Your task to perform on an android device: open app "Facebook Lite" (install if not already installed) Image 0: 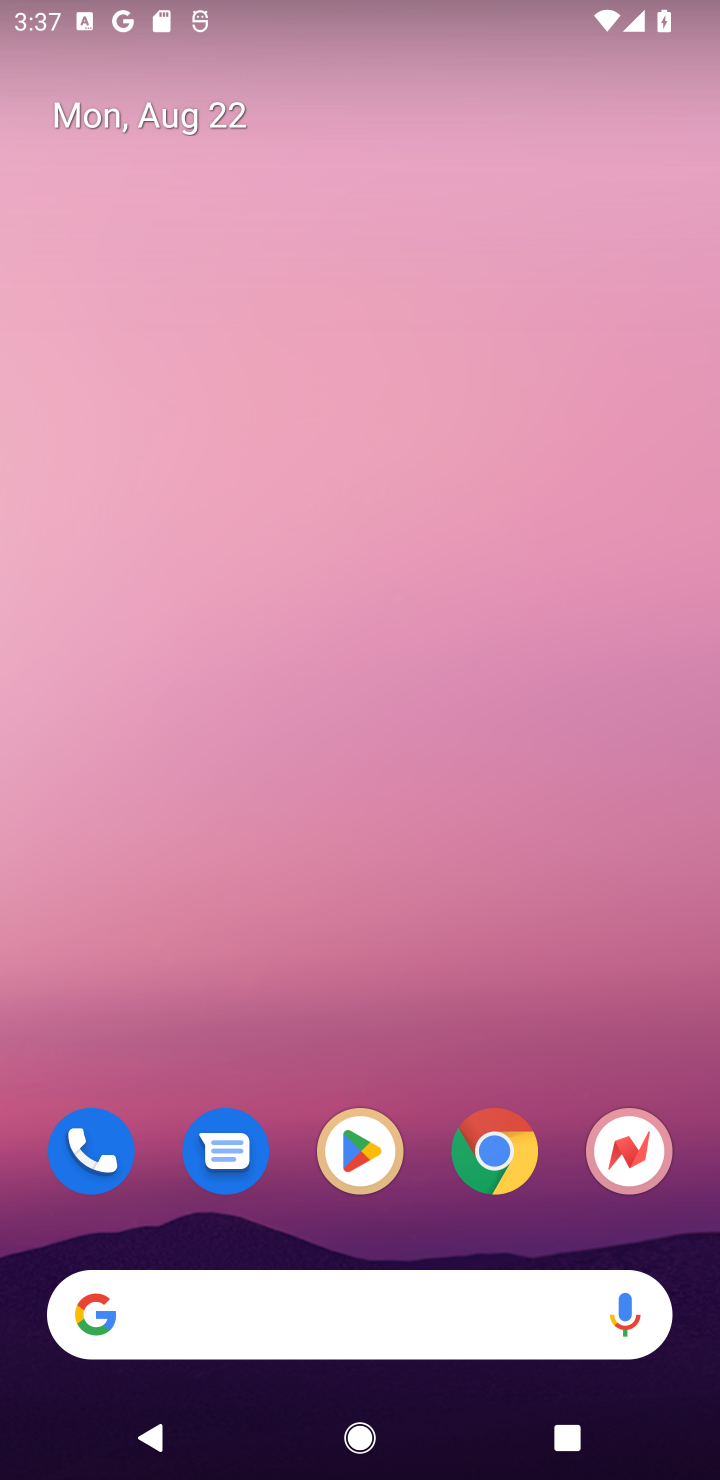
Step 0: click (365, 1153)
Your task to perform on an android device: open app "Facebook Lite" (install if not already installed) Image 1: 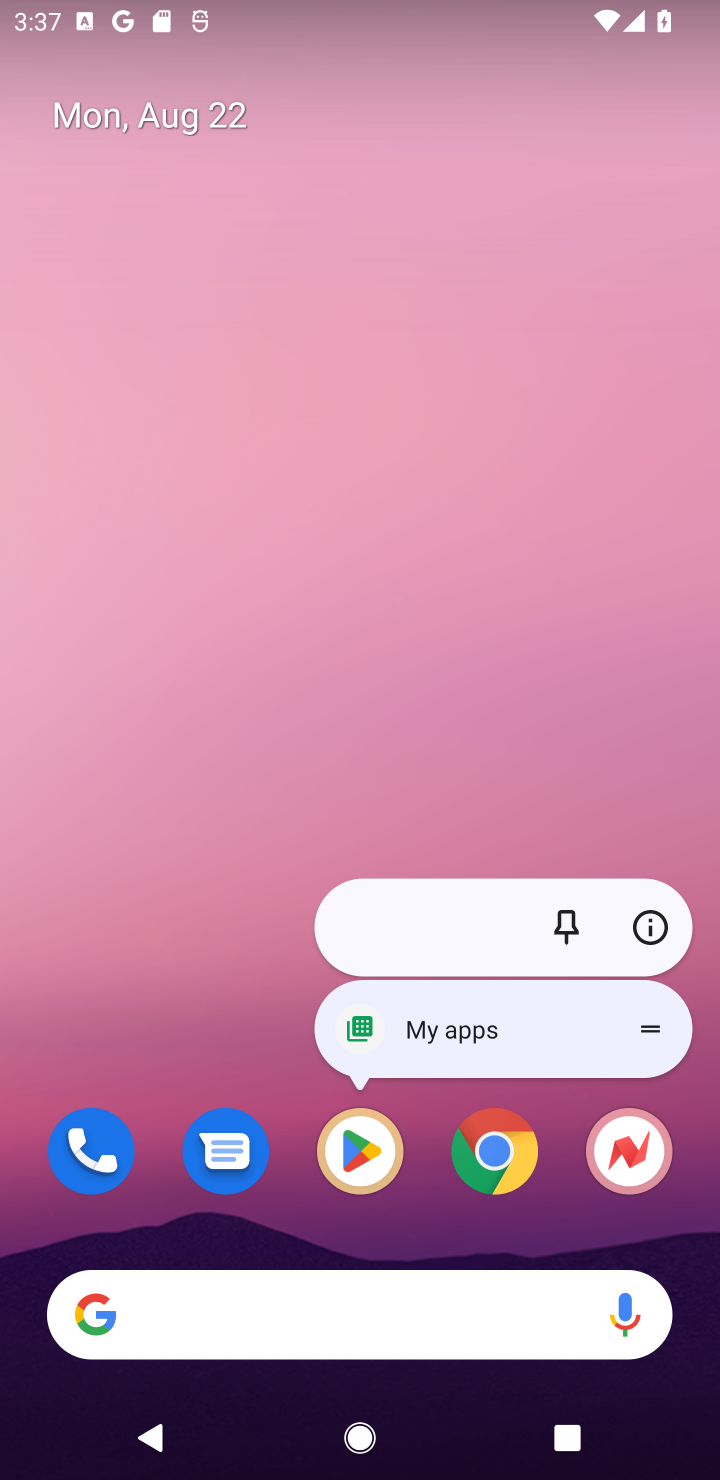
Step 1: click (365, 1160)
Your task to perform on an android device: open app "Facebook Lite" (install if not already installed) Image 2: 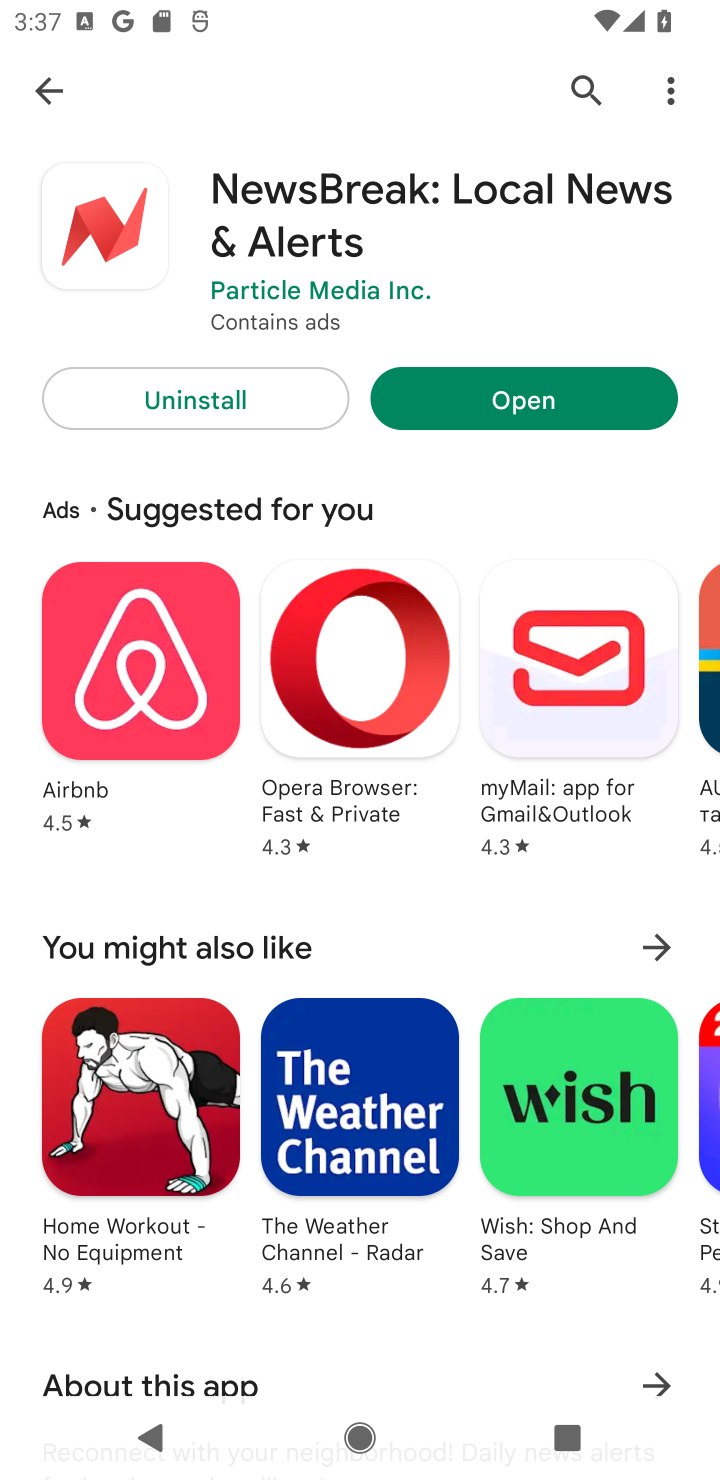
Step 2: click (579, 86)
Your task to perform on an android device: open app "Facebook Lite" (install if not already installed) Image 3: 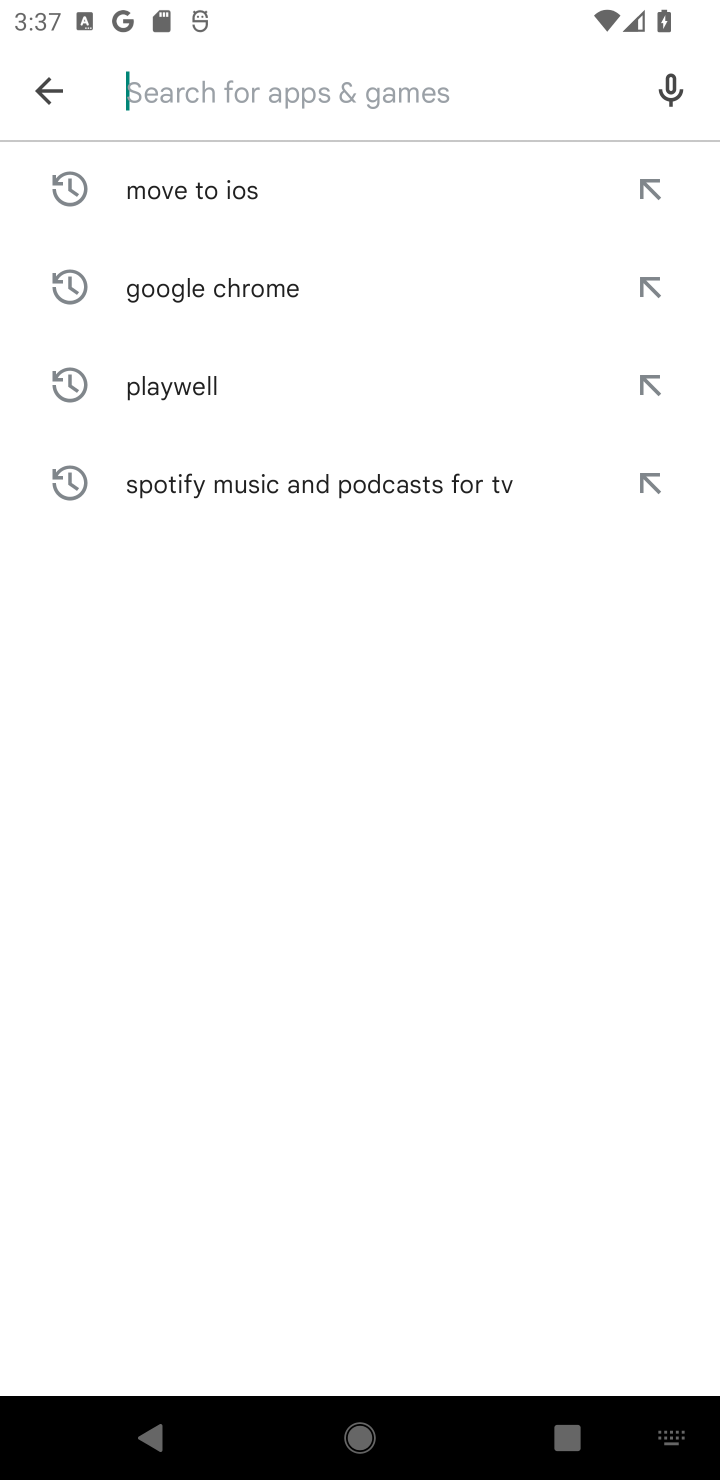
Step 3: type "Facebook Lite"
Your task to perform on an android device: open app "Facebook Lite" (install if not already installed) Image 4: 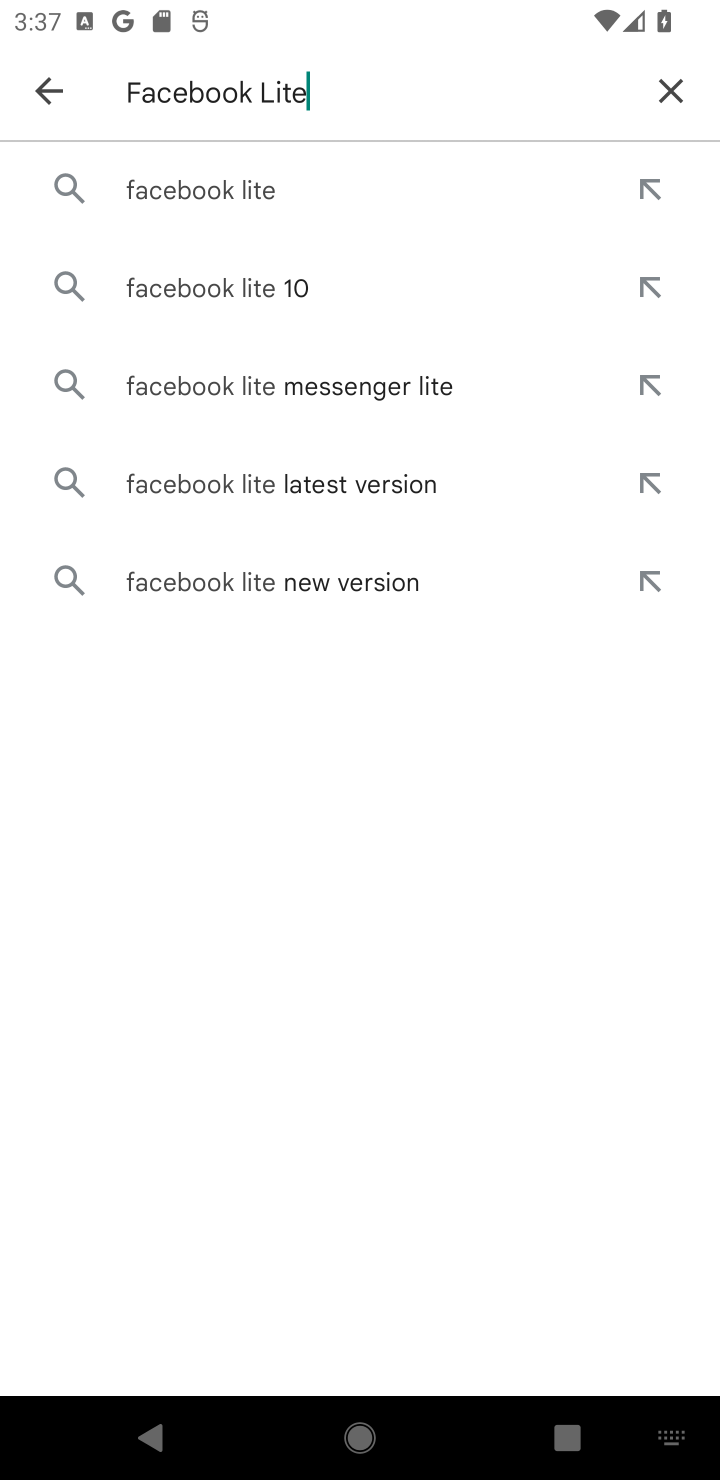
Step 4: click (253, 193)
Your task to perform on an android device: open app "Facebook Lite" (install if not already installed) Image 5: 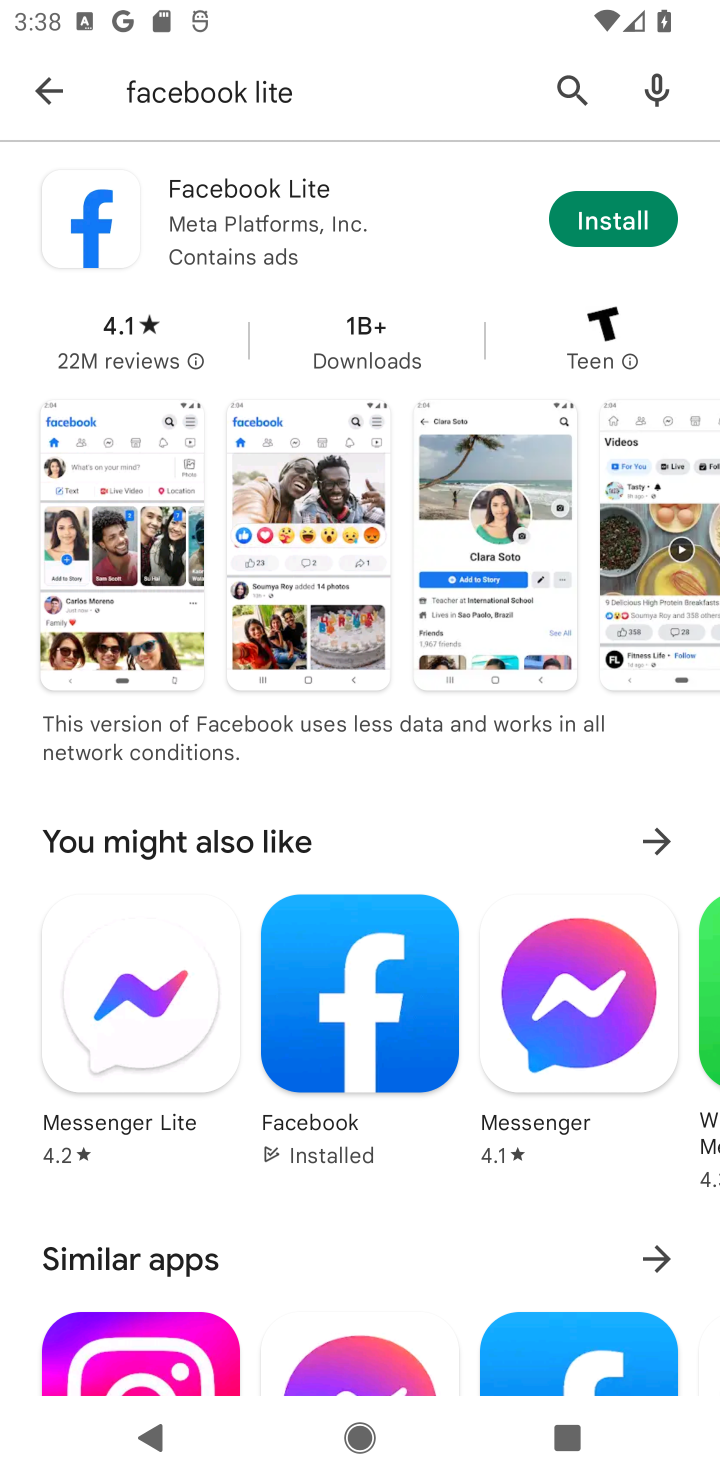
Step 5: click (605, 216)
Your task to perform on an android device: open app "Facebook Lite" (install if not already installed) Image 6: 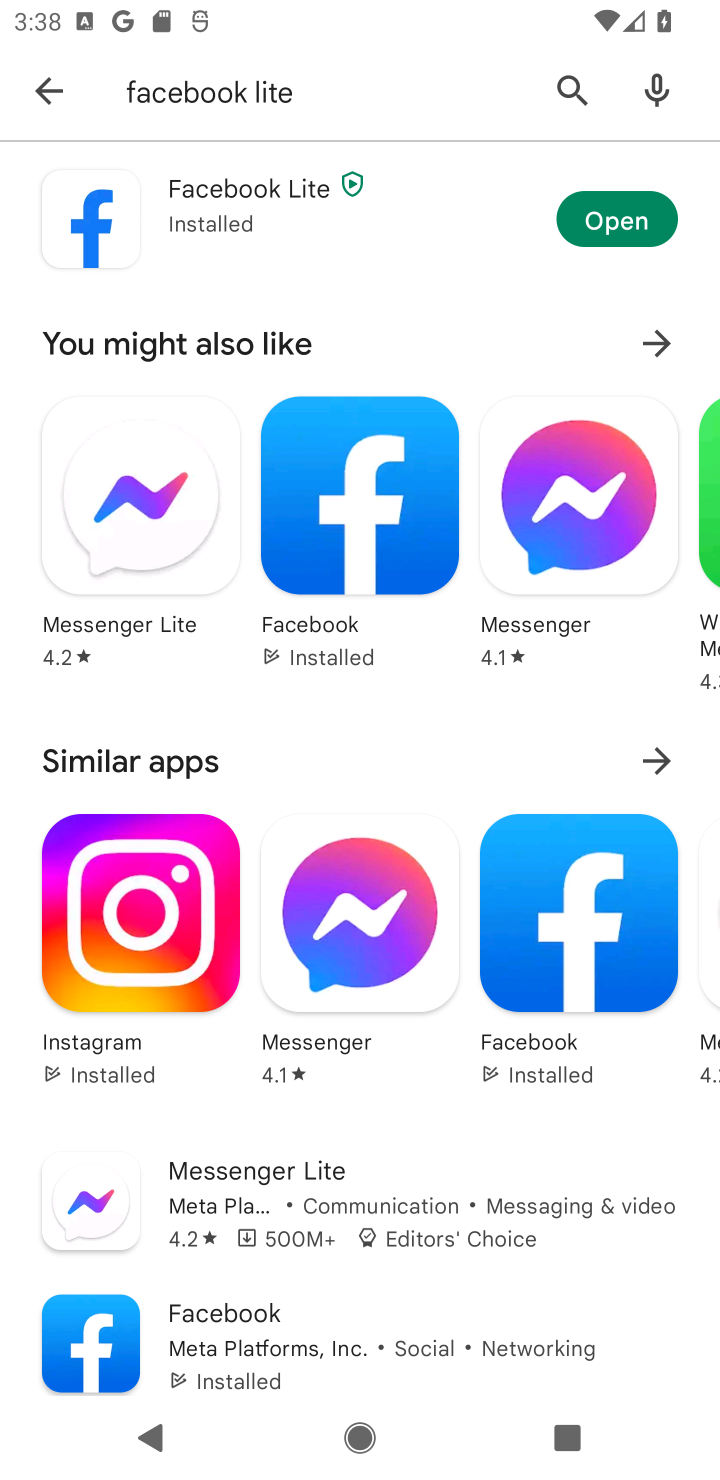
Step 6: click (616, 216)
Your task to perform on an android device: open app "Facebook Lite" (install if not already installed) Image 7: 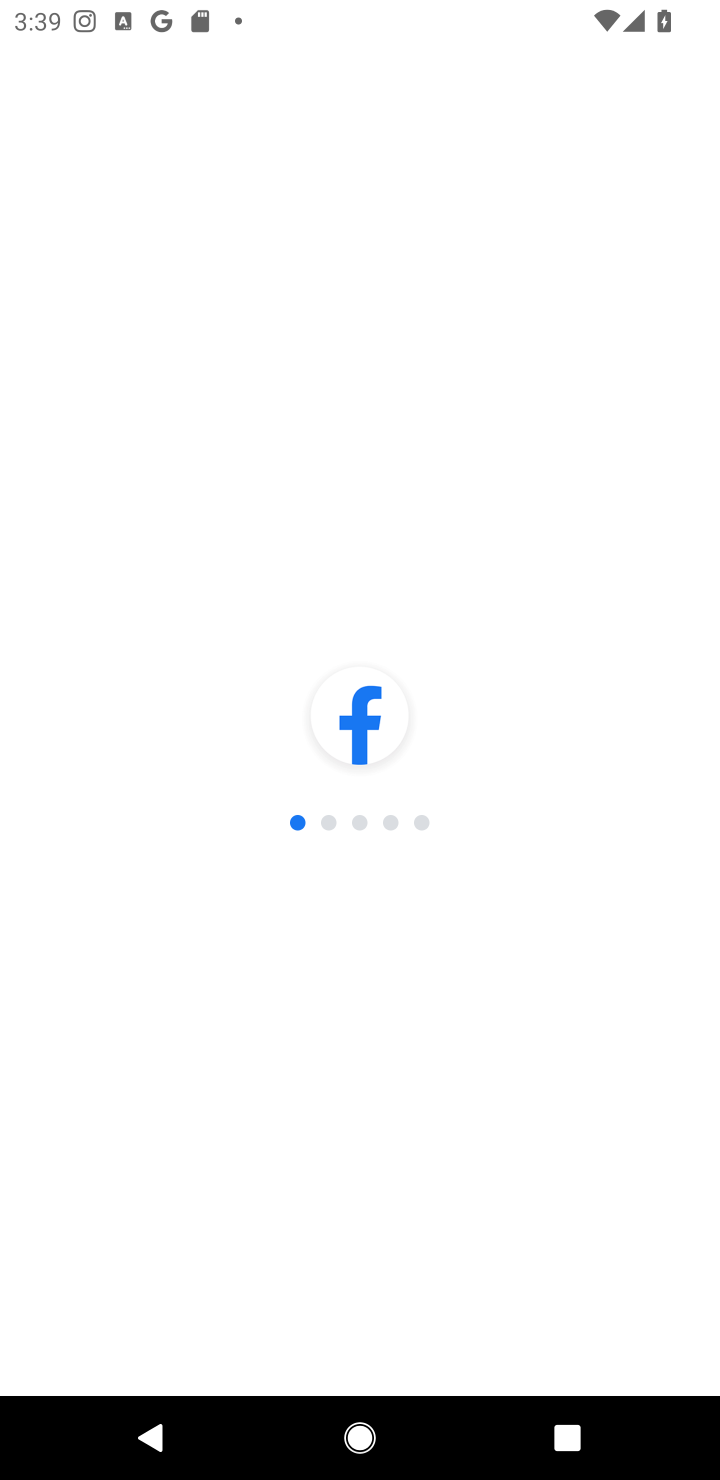
Step 7: task complete